Your task to perform on an android device: What's the weather going to be tomorrow? Image 0: 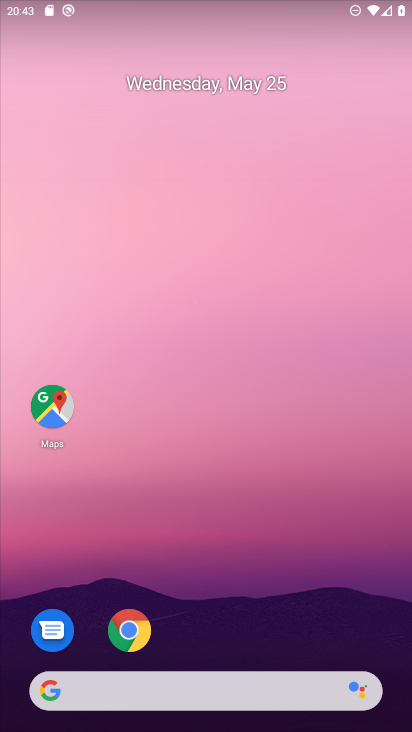
Step 0: drag from (212, 621) to (302, 89)
Your task to perform on an android device: What's the weather going to be tomorrow? Image 1: 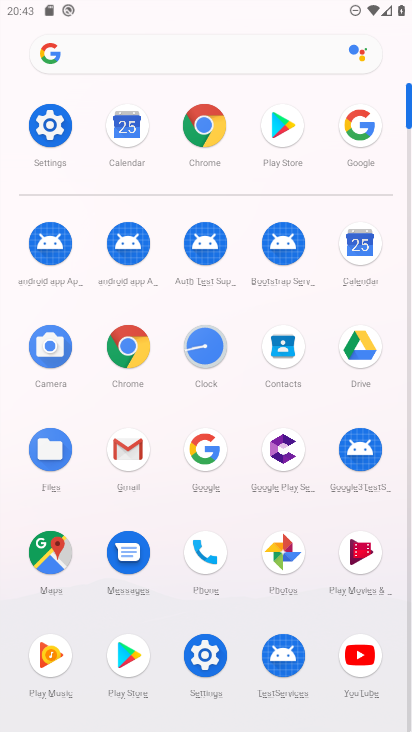
Step 1: click (208, 449)
Your task to perform on an android device: What's the weather going to be tomorrow? Image 2: 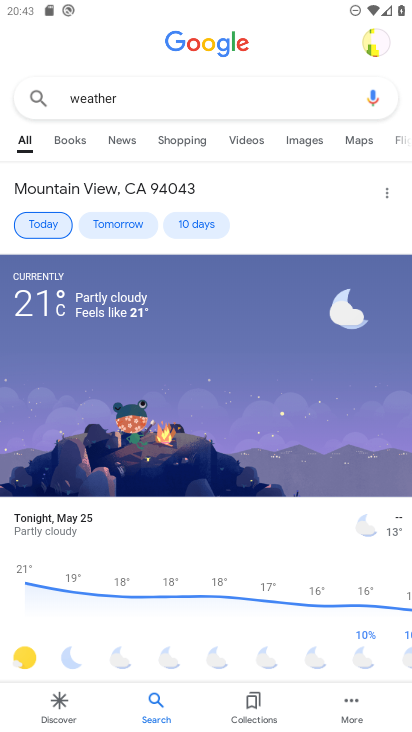
Step 2: click (204, 92)
Your task to perform on an android device: What's the weather going to be tomorrow? Image 3: 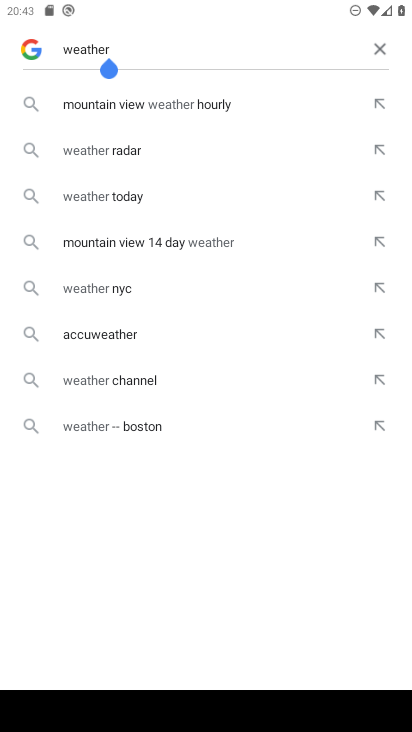
Step 3: click (378, 48)
Your task to perform on an android device: What's the weather going to be tomorrow? Image 4: 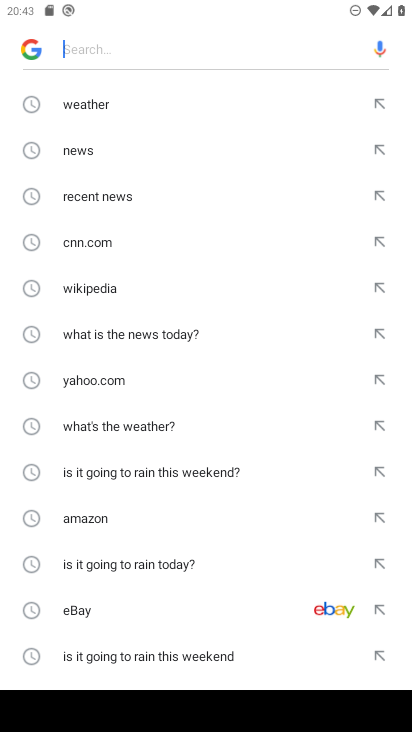
Step 4: drag from (190, 611) to (269, 325)
Your task to perform on an android device: What's the weather going to be tomorrow? Image 5: 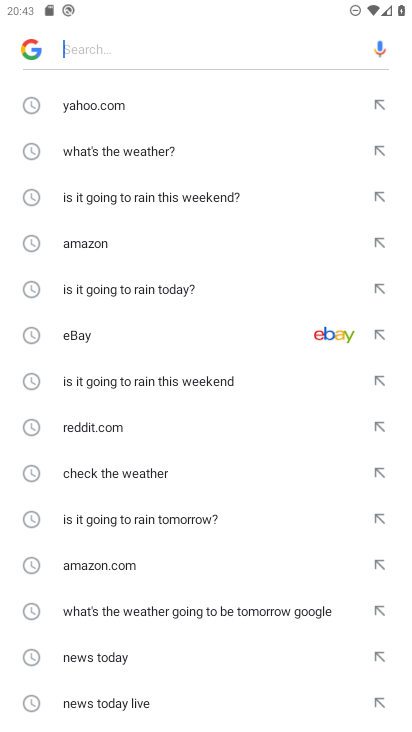
Step 5: drag from (193, 151) to (260, 387)
Your task to perform on an android device: What's the weather going to be tomorrow? Image 6: 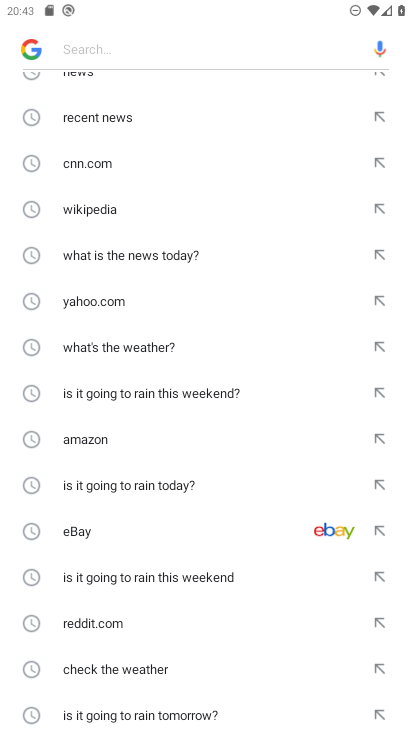
Step 6: type "weather tomorrow"
Your task to perform on an android device: What's the weather going to be tomorrow? Image 7: 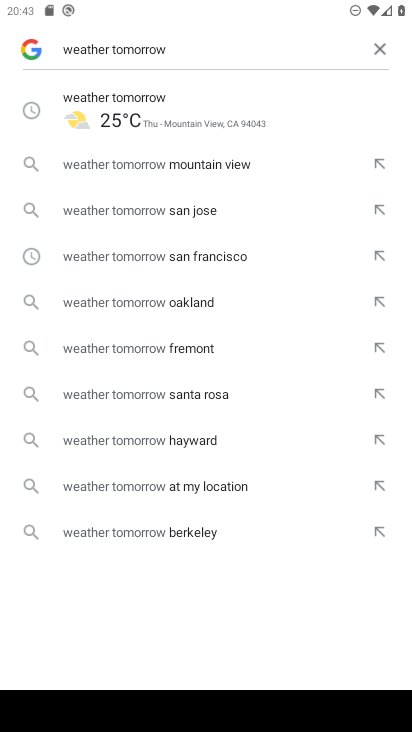
Step 7: click (184, 99)
Your task to perform on an android device: What's the weather going to be tomorrow? Image 8: 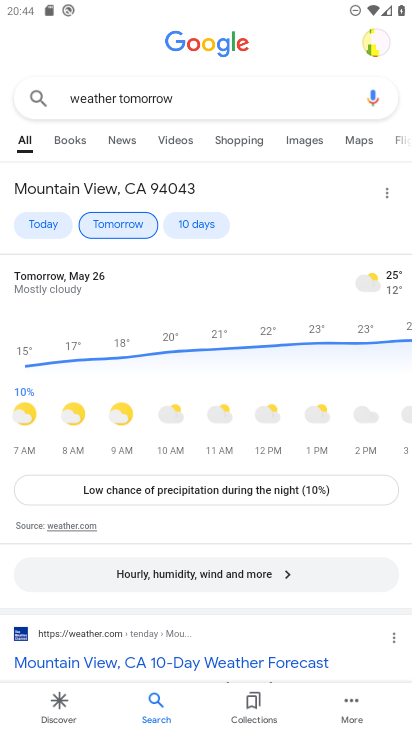
Step 8: task complete